Your task to perform on an android device: Open calendar and show me the first week of next month Image 0: 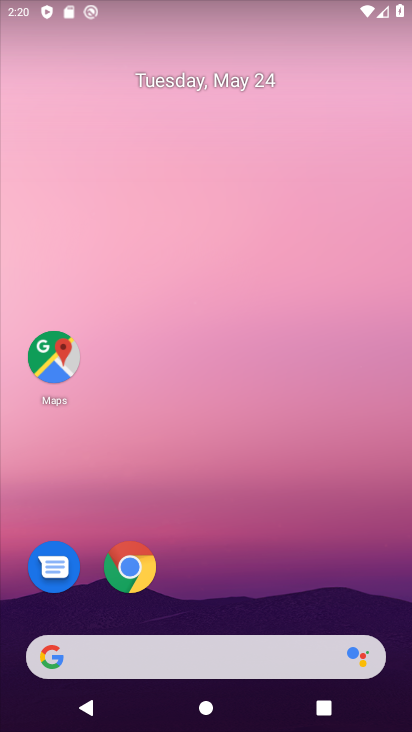
Step 0: drag from (251, 592) to (320, 45)
Your task to perform on an android device: Open calendar and show me the first week of next month Image 1: 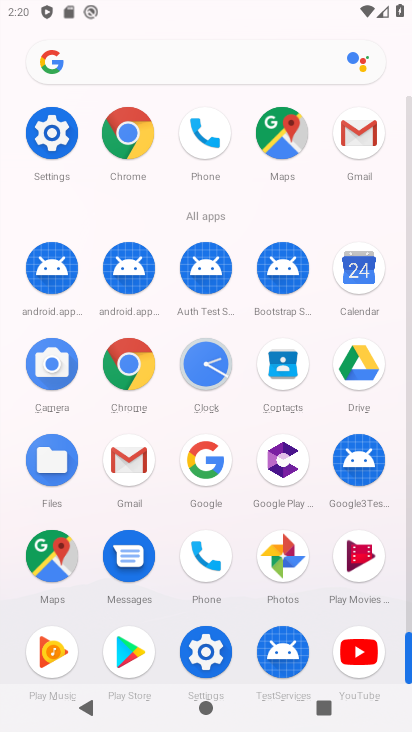
Step 1: click (343, 273)
Your task to perform on an android device: Open calendar and show me the first week of next month Image 2: 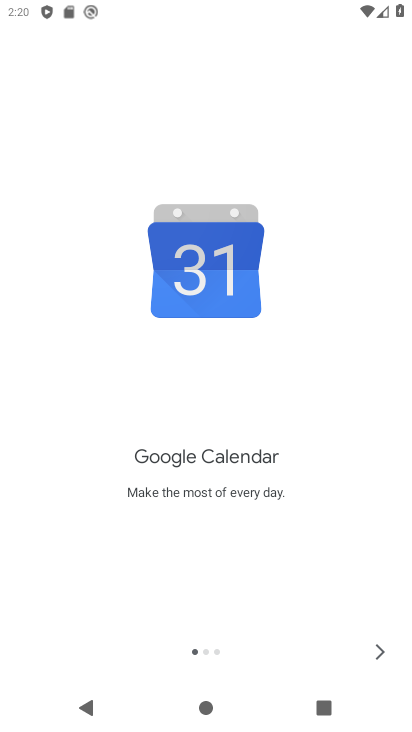
Step 2: click (369, 656)
Your task to perform on an android device: Open calendar and show me the first week of next month Image 3: 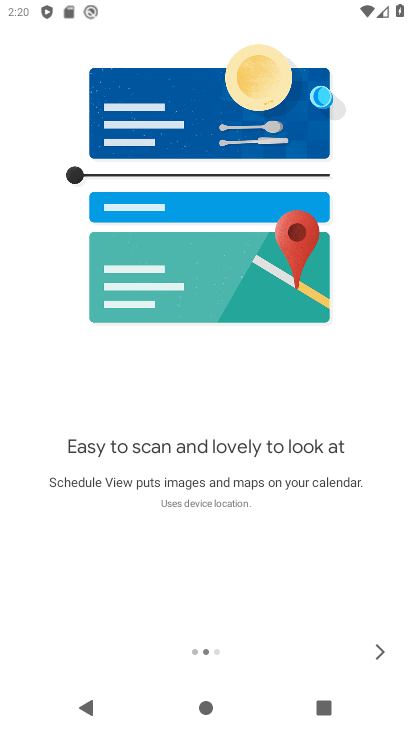
Step 3: click (373, 653)
Your task to perform on an android device: Open calendar and show me the first week of next month Image 4: 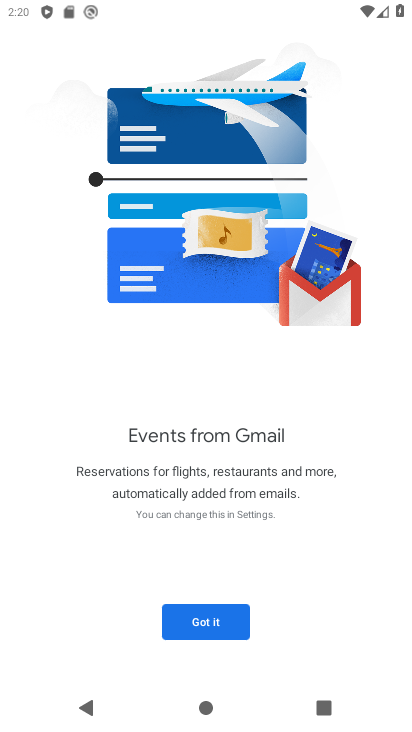
Step 4: click (212, 624)
Your task to perform on an android device: Open calendar and show me the first week of next month Image 5: 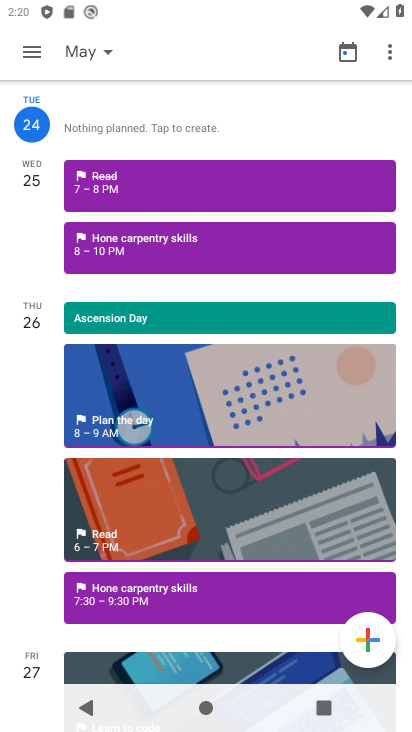
Step 5: click (105, 55)
Your task to perform on an android device: Open calendar and show me the first week of next month Image 6: 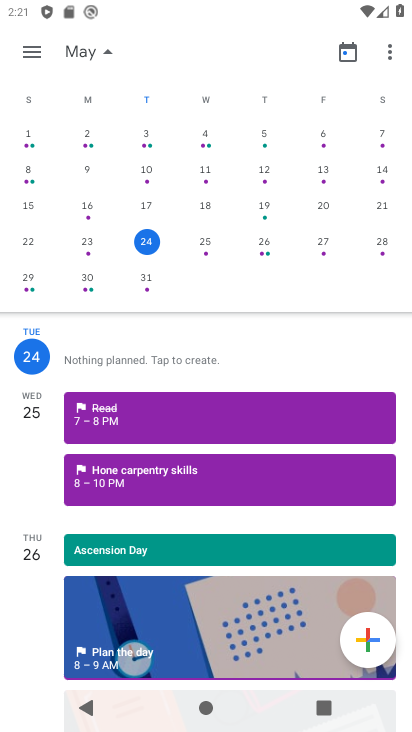
Step 6: drag from (379, 223) to (57, 193)
Your task to perform on an android device: Open calendar and show me the first week of next month Image 7: 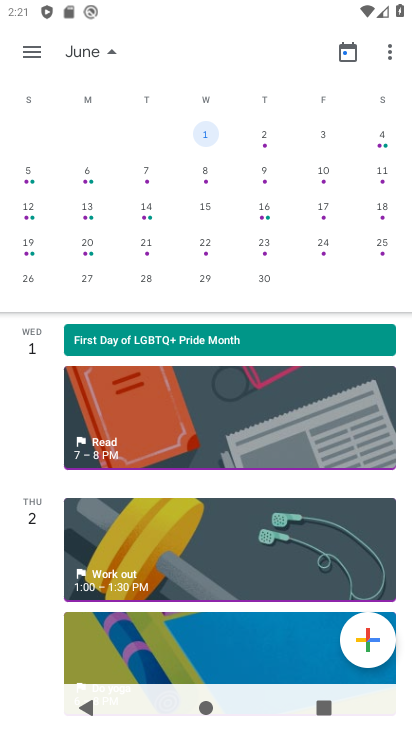
Step 7: click (204, 125)
Your task to perform on an android device: Open calendar and show me the first week of next month Image 8: 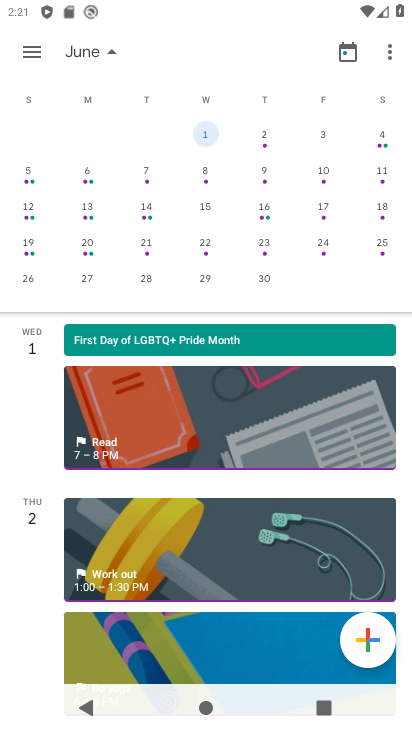
Step 8: task complete